Your task to perform on an android device: Go to Google maps Image 0: 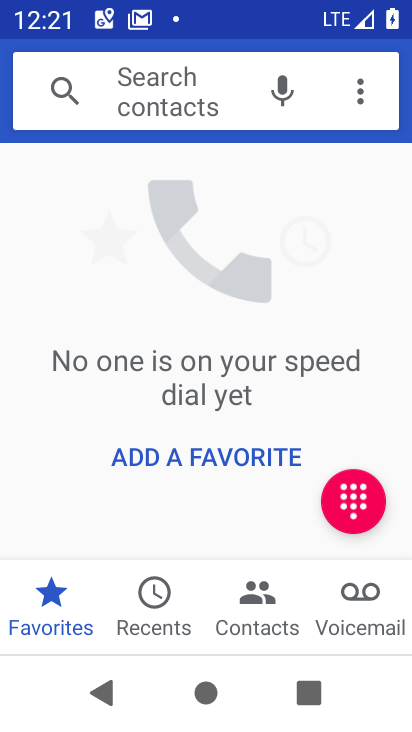
Step 0: press home button
Your task to perform on an android device: Go to Google maps Image 1: 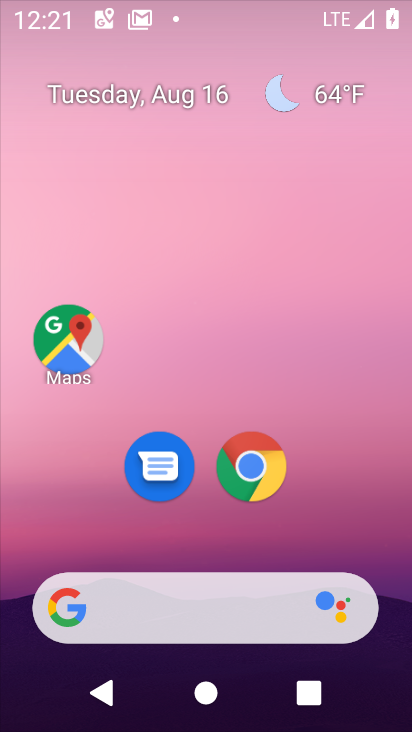
Step 1: drag from (209, 547) to (200, 1)
Your task to perform on an android device: Go to Google maps Image 2: 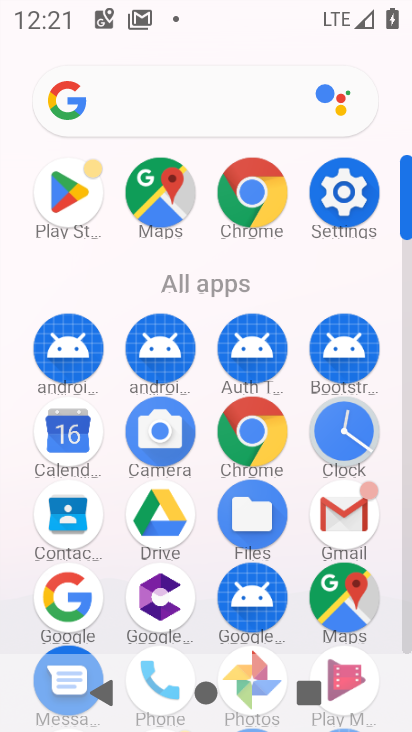
Step 2: click (167, 206)
Your task to perform on an android device: Go to Google maps Image 3: 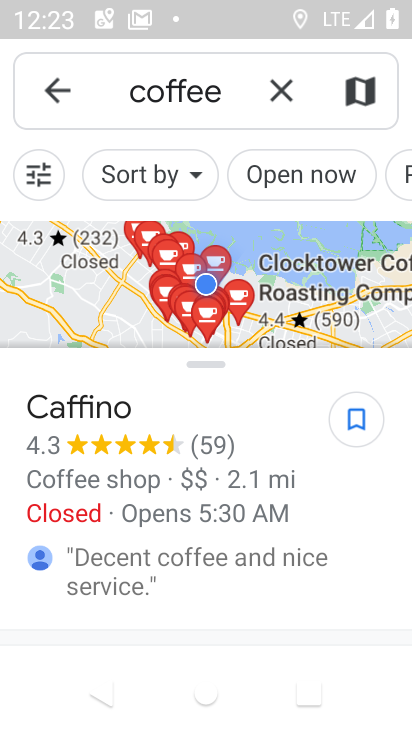
Step 3: task complete